Your task to perform on an android device: check battery use Image 0: 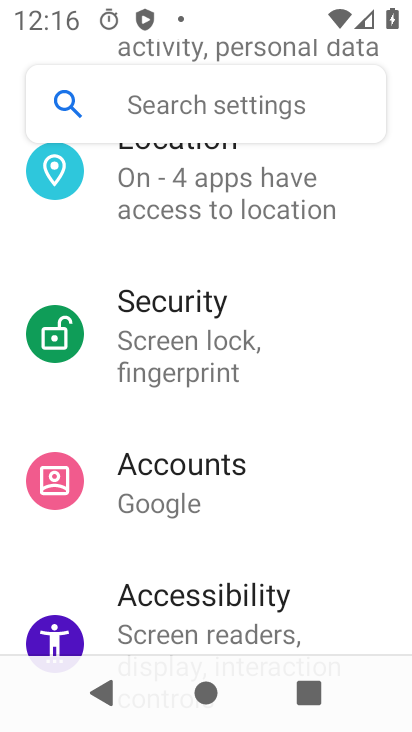
Step 0: drag from (229, 292) to (229, 628)
Your task to perform on an android device: check battery use Image 1: 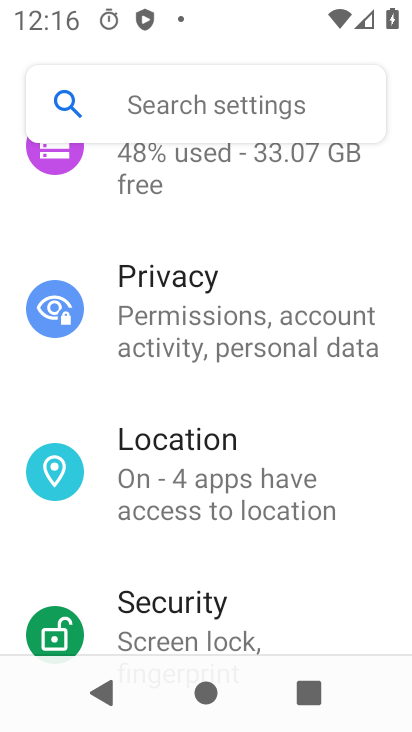
Step 1: drag from (251, 371) to (240, 623)
Your task to perform on an android device: check battery use Image 2: 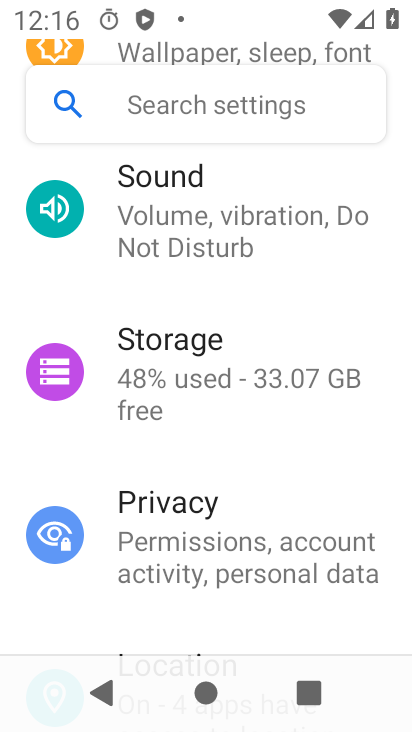
Step 2: drag from (228, 284) to (205, 663)
Your task to perform on an android device: check battery use Image 3: 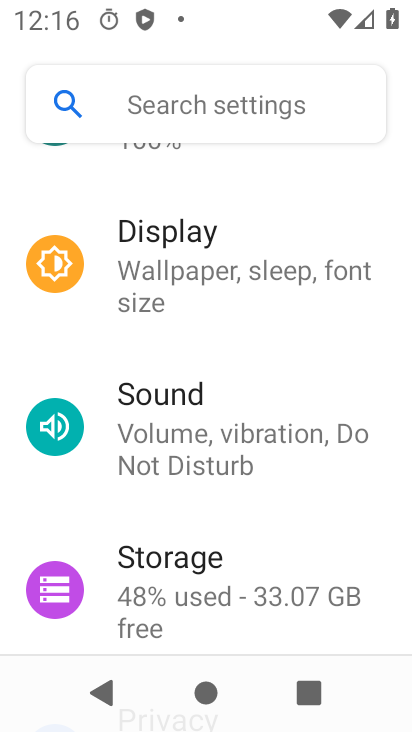
Step 3: drag from (220, 459) to (212, 636)
Your task to perform on an android device: check battery use Image 4: 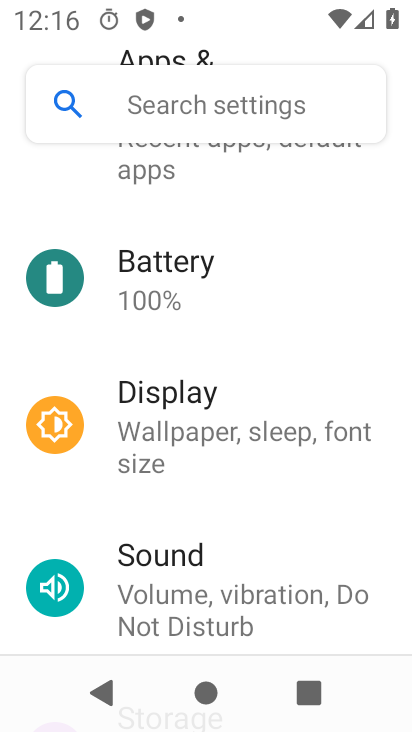
Step 4: click (264, 426)
Your task to perform on an android device: check battery use Image 5: 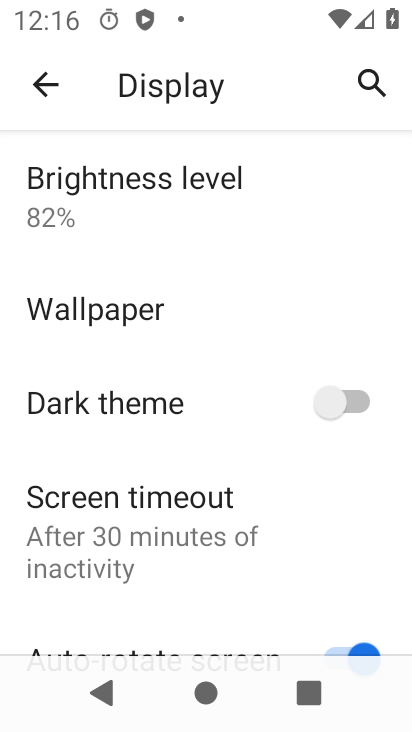
Step 5: click (51, 86)
Your task to perform on an android device: check battery use Image 6: 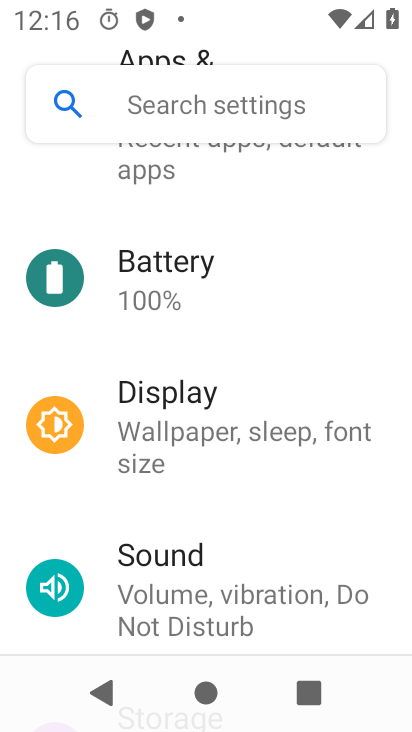
Step 6: drag from (245, 260) to (252, 661)
Your task to perform on an android device: check battery use Image 7: 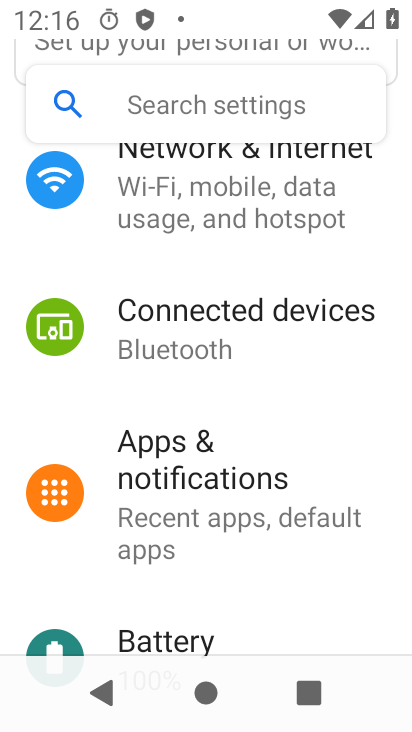
Step 7: click (167, 637)
Your task to perform on an android device: check battery use Image 8: 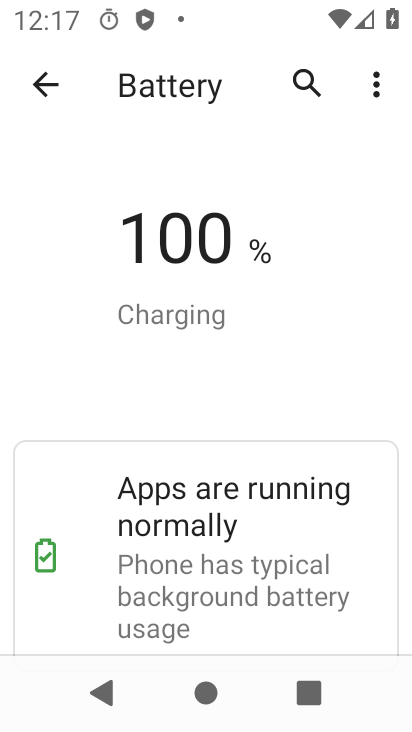
Step 8: click (373, 86)
Your task to perform on an android device: check battery use Image 9: 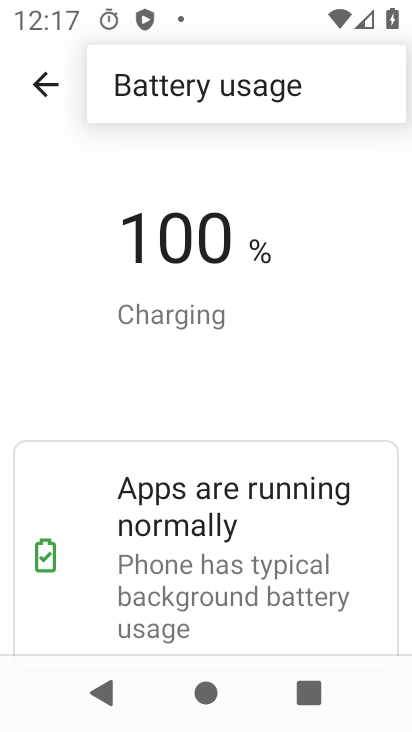
Step 9: click (276, 91)
Your task to perform on an android device: check battery use Image 10: 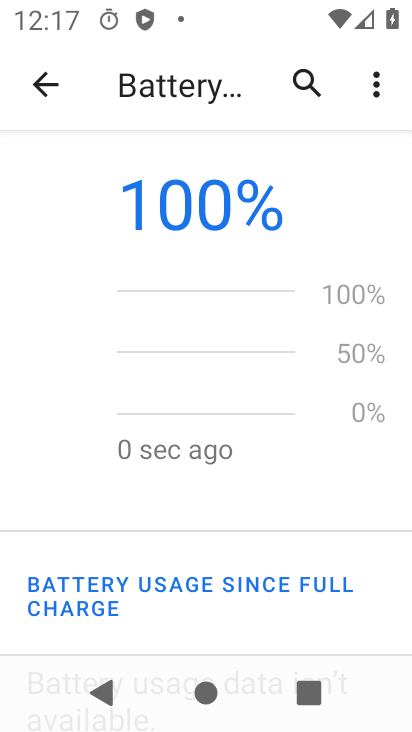
Step 10: task complete